Your task to perform on an android device: Open Google Chrome and click the shortcut for Amazon.com Image 0: 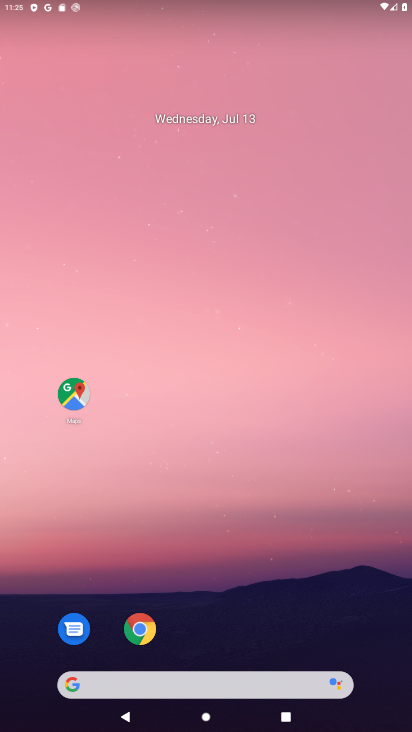
Step 0: click (144, 625)
Your task to perform on an android device: Open Google Chrome and click the shortcut for Amazon.com Image 1: 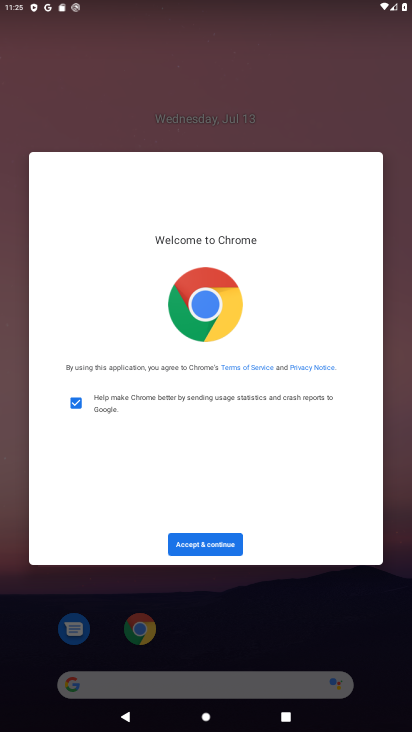
Step 1: click (199, 537)
Your task to perform on an android device: Open Google Chrome and click the shortcut for Amazon.com Image 2: 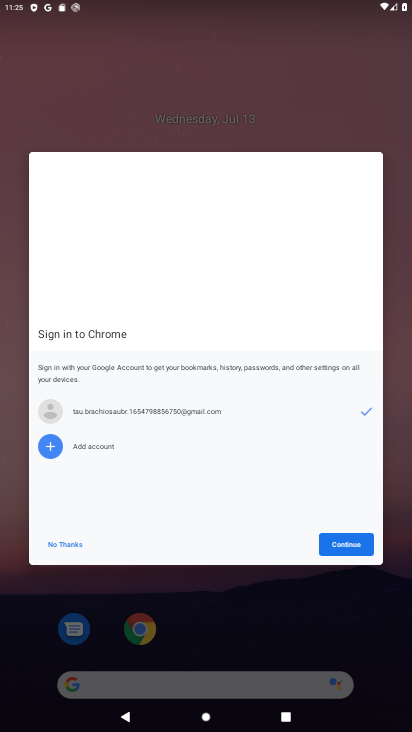
Step 2: click (341, 537)
Your task to perform on an android device: Open Google Chrome and click the shortcut for Amazon.com Image 3: 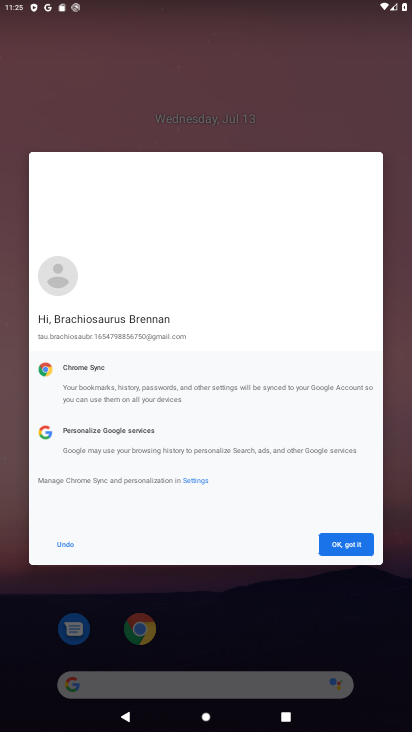
Step 3: click (341, 537)
Your task to perform on an android device: Open Google Chrome and click the shortcut for Amazon.com Image 4: 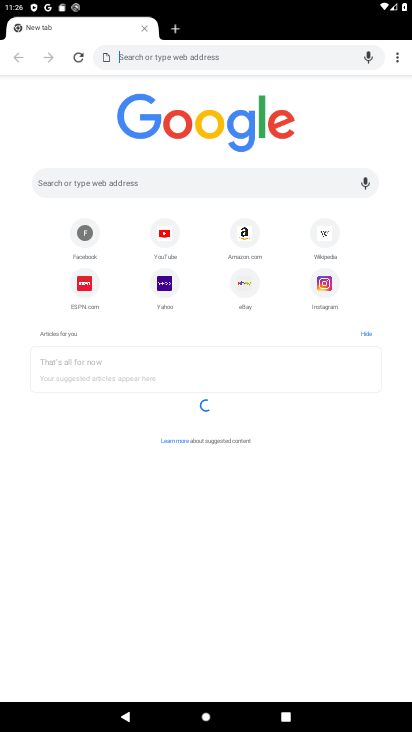
Step 4: click (245, 236)
Your task to perform on an android device: Open Google Chrome and click the shortcut for Amazon.com Image 5: 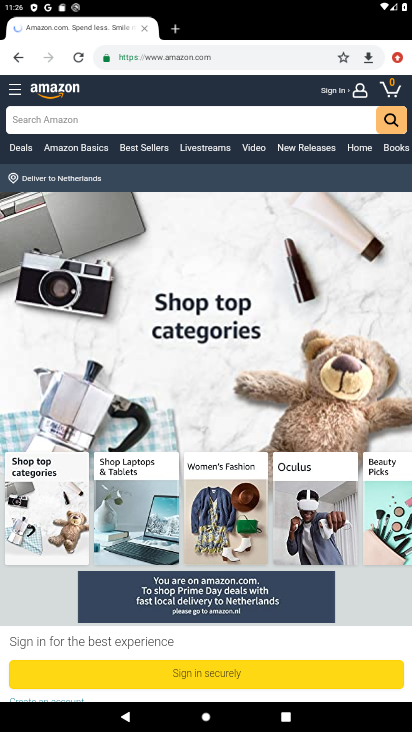
Step 5: task complete